Your task to perform on an android device: Open my contact list Image 0: 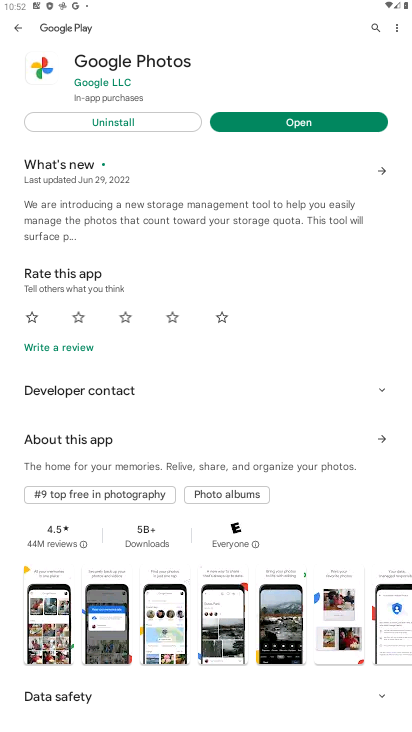
Step 0: press home button
Your task to perform on an android device: Open my contact list Image 1: 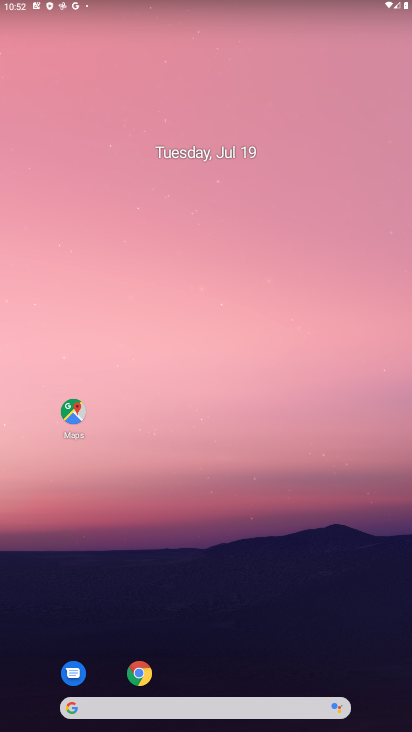
Step 1: drag from (285, 670) to (109, 5)
Your task to perform on an android device: Open my contact list Image 2: 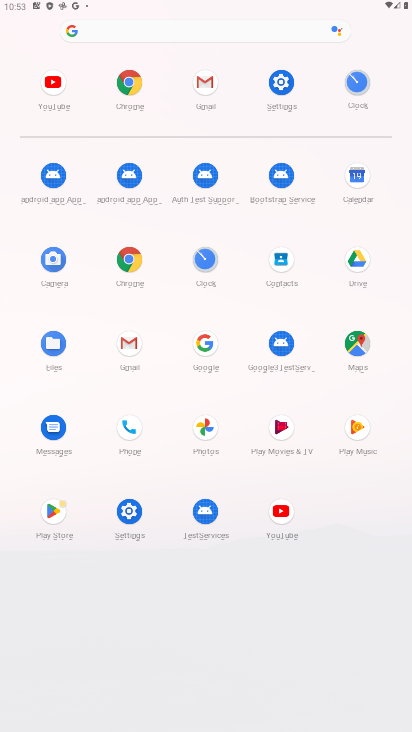
Step 2: click (131, 37)
Your task to perform on an android device: Open my contact list Image 3: 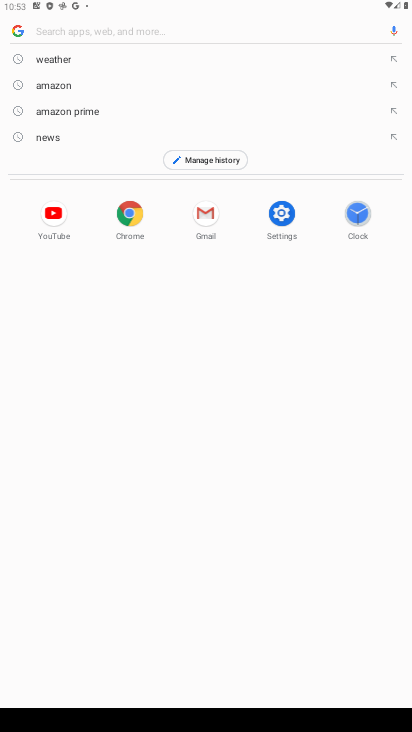
Step 3: press back button
Your task to perform on an android device: Open my contact list Image 4: 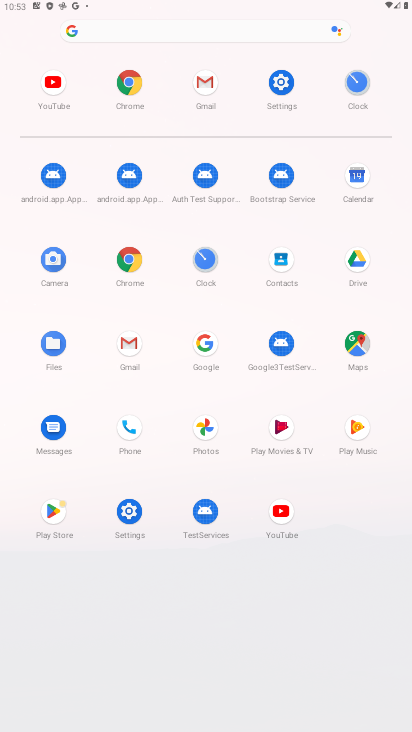
Step 4: click (286, 262)
Your task to perform on an android device: Open my contact list Image 5: 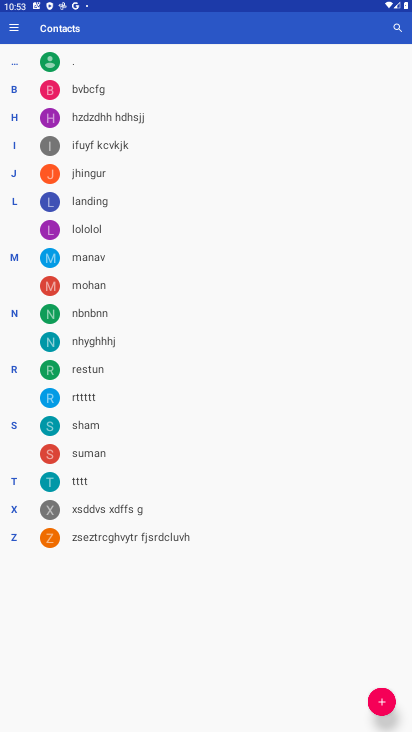
Step 5: task complete